Your task to perform on an android device: Open Yahoo.com Image 0: 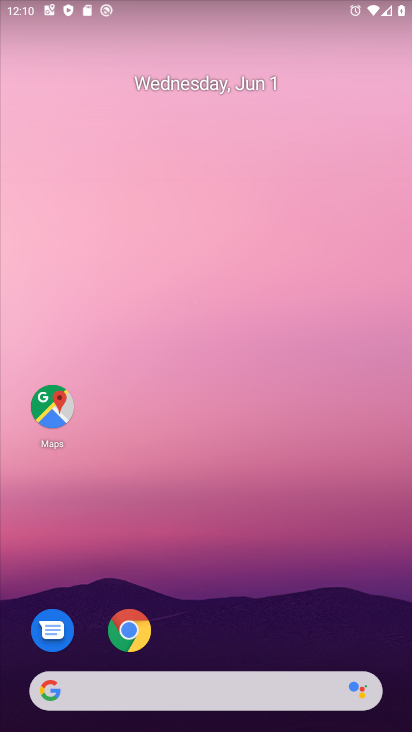
Step 0: click (133, 640)
Your task to perform on an android device: Open Yahoo.com Image 1: 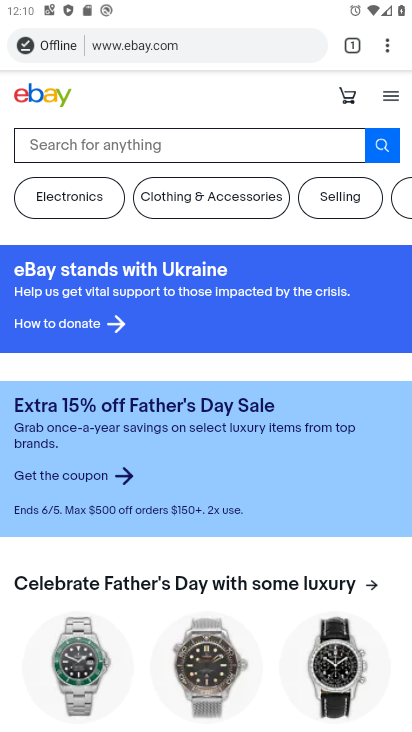
Step 1: click (346, 55)
Your task to perform on an android device: Open Yahoo.com Image 2: 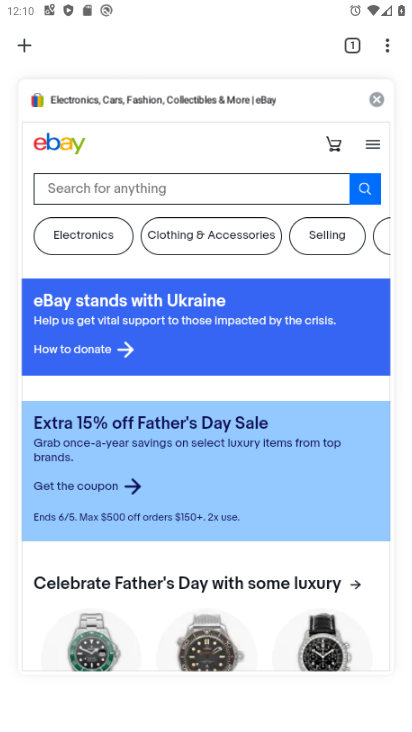
Step 2: click (380, 97)
Your task to perform on an android device: Open Yahoo.com Image 3: 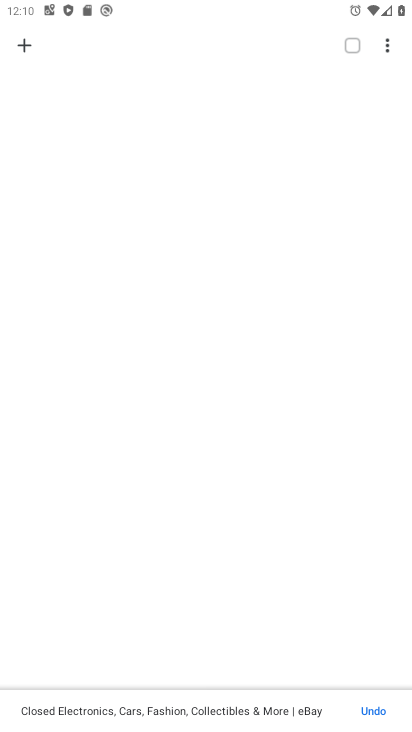
Step 3: click (12, 42)
Your task to perform on an android device: Open Yahoo.com Image 4: 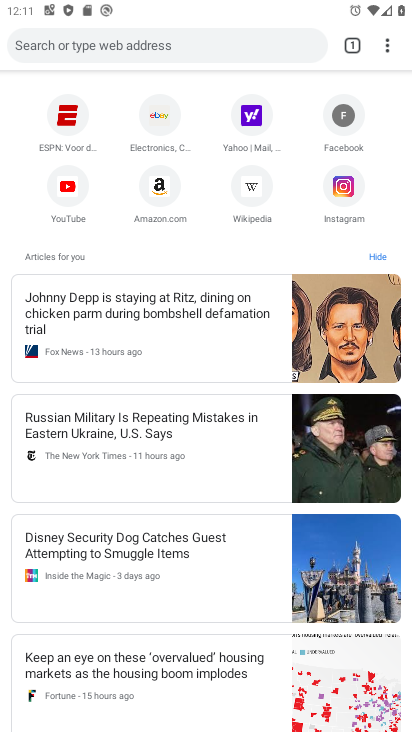
Step 4: click (252, 120)
Your task to perform on an android device: Open Yahoo.com Image 5: 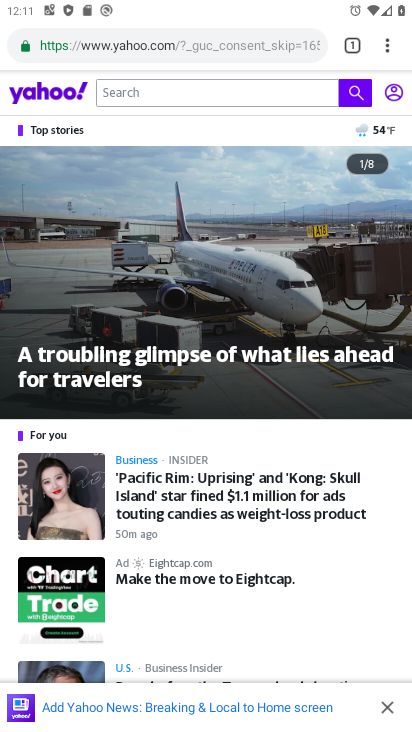
Step 5: task complete